Your task to perform on an android device: Go to battery settings Image 0: 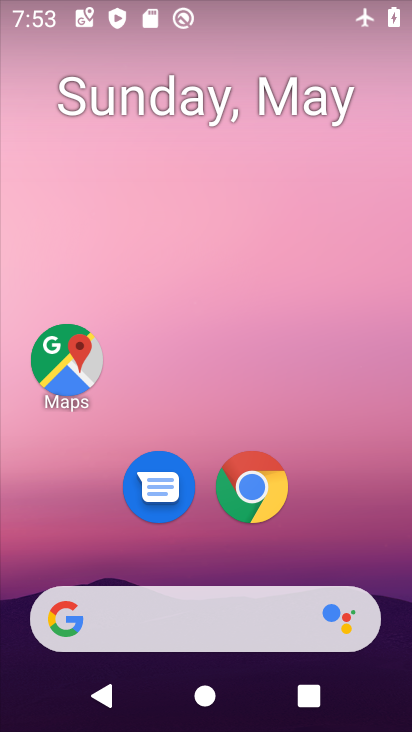
Step 0: drag from (381, 563) to (381, 303)
Your task to perform on an android device: Go to battery settings Image 1: 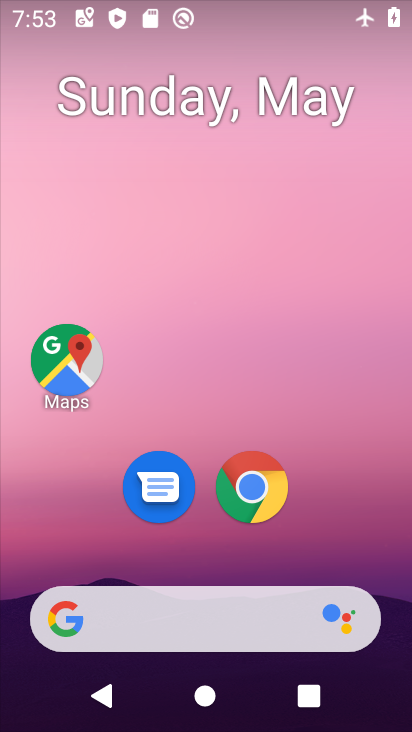
Step 1: drag from (367, 537) to (367, 158)
Your task to perform on an android device: Go to battery settings Image 2: 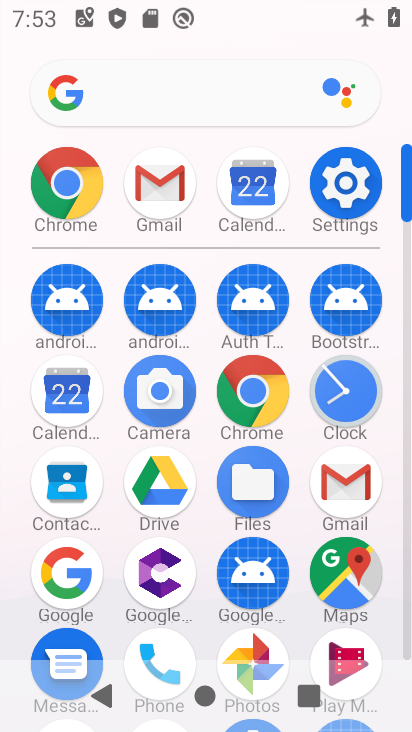
Step 2: click (356, 197)
Your task to perform on an android device: Go to battery settings Image 3: 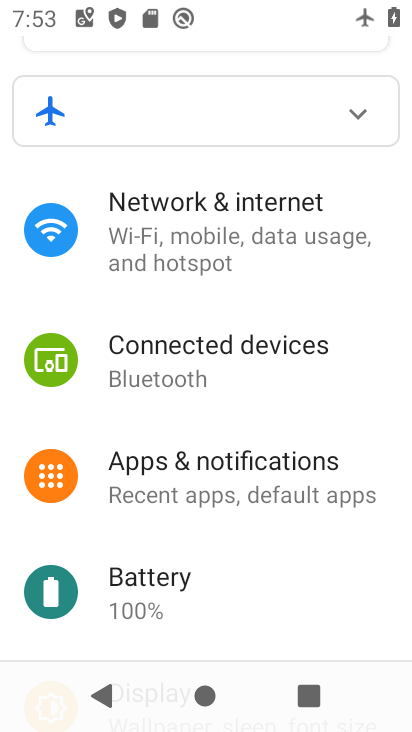
Step 3: drag from (387, 549) to (386, 488)
Your task to perform on an android device: Go to battery settings Image 4: 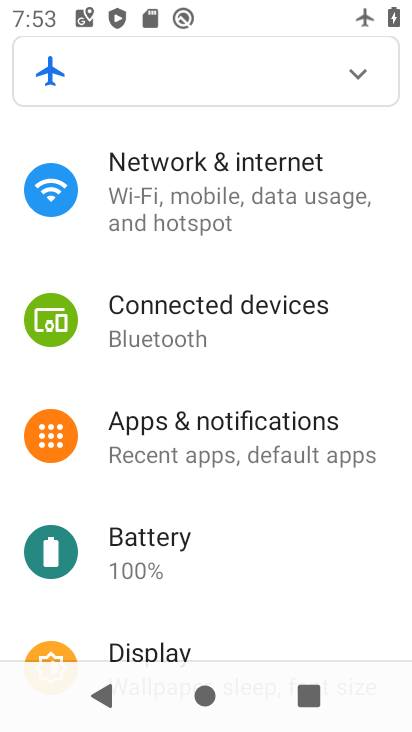
Step 4: drag from (378, 617) to (368, 502)
Your task to perform on an android device: Go to battery settings Image 5: 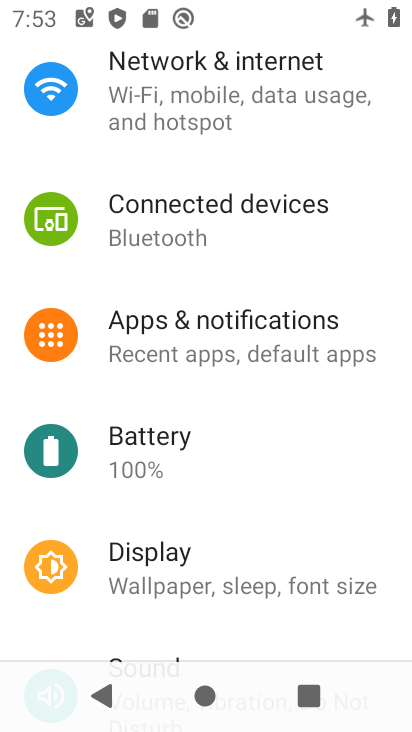
Step 5: drag from (369, 586) to (358, 509)
Your task to perform on an android device: Go to battery settings Image 6: 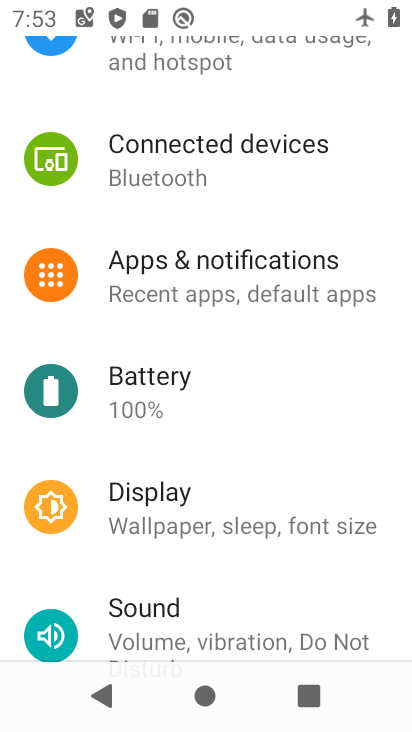
Step 6: drag from (359, 600) to (360, 496)
Your task to perform on an android device: Go to battery settings Image 7: 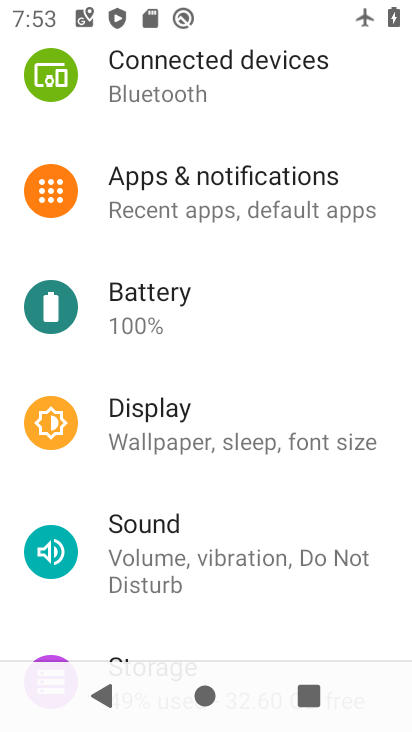
Step 7: drag from (356, 604) to (356, 524)
Your task to perform on an android device: Go to battery settings Image 8: 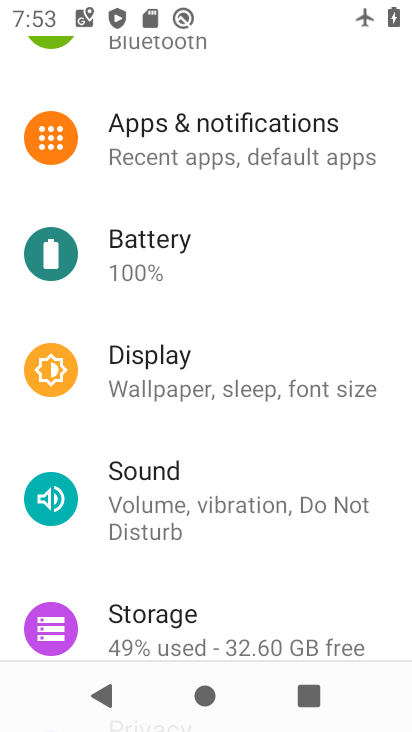
Step 8: drag from (361, 599) to (349, 489)
Your task to perform on an android device: Go to battery settings Image 9: 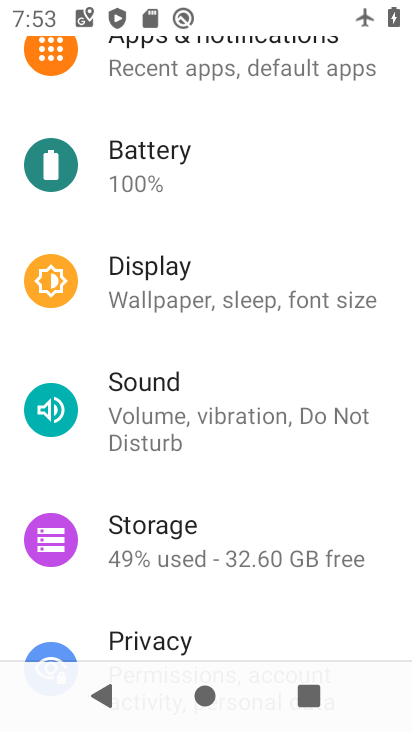
Step 9: drag from (364, 618) to (364, 531)
Your task to perform on an android device: Go to battery settings Image 10: 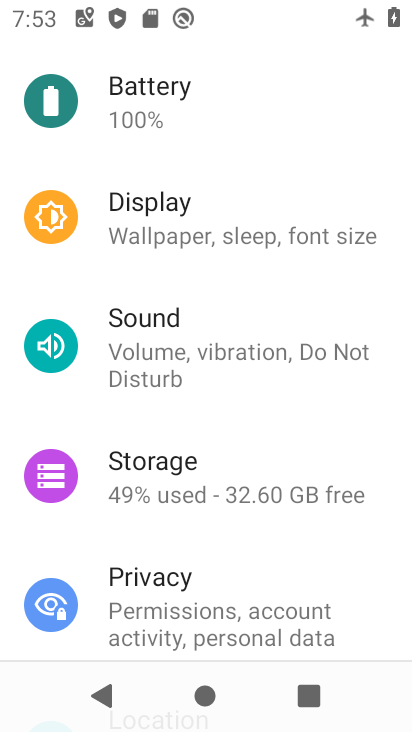
Step 10: drag from (366, 629) to (366, 531)
Your task to perform on an android device: Go to battery settings Image 11: 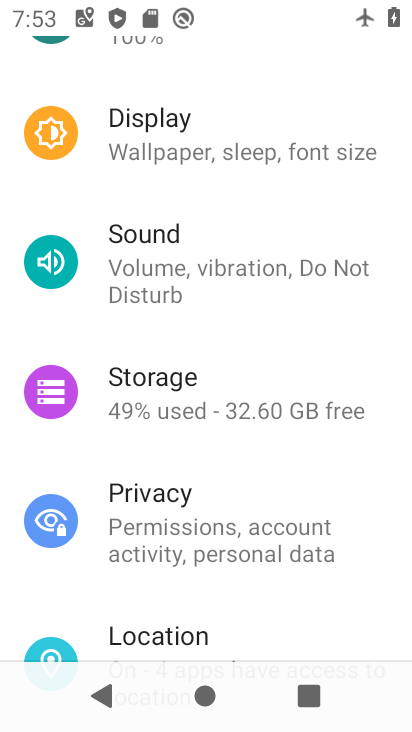
Step 11: drag from (356, 625) to (356, 526)
Your task to perform on an android device: Go to battery settings Image 12: 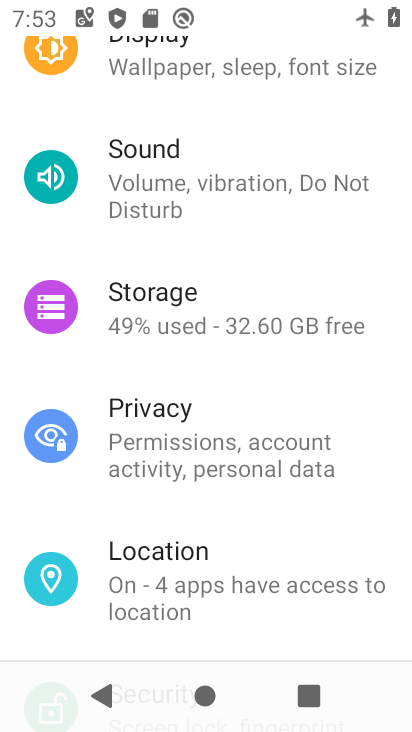
Step 12: drag from (359, 633) to (351, 530)
Your task to perform on an android device: Go to battery settings Image 13: 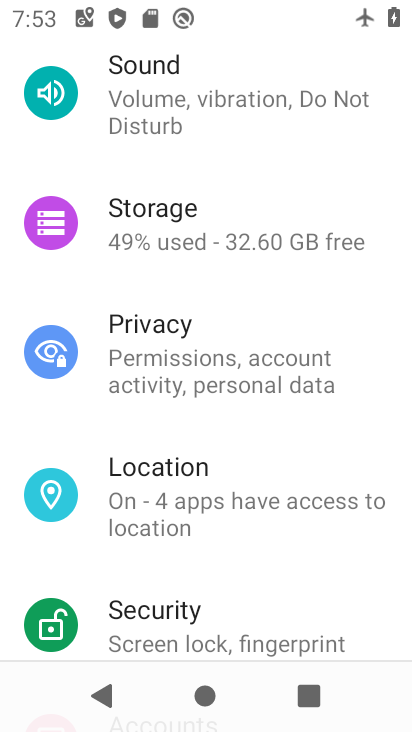
Step 13: drag from (367, 601) to (364, 543)
Your task to perform on an android device: Go to battery settings Image 14: 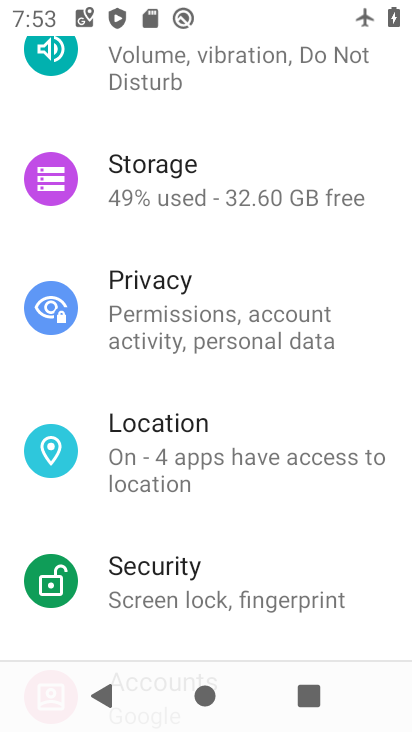
Step 14: drag from (372, 641) to (372, 562)
Your task to perform on an android device: Go to battery settings Image 15: 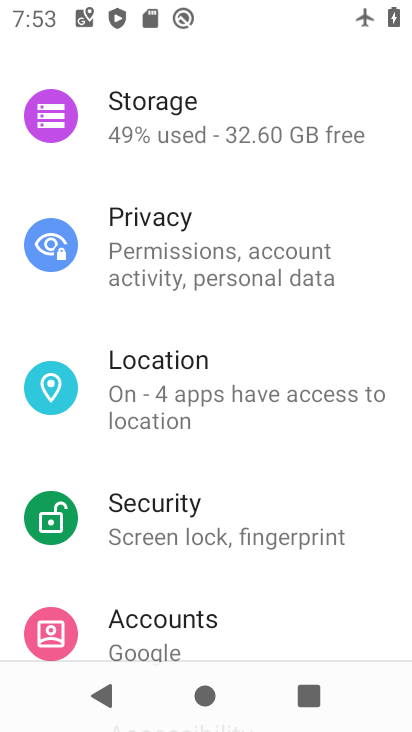
Step 15: drag from (370, 637) to (367, 508)
Your task to perform on an android device: Go to battery settings Image 16: 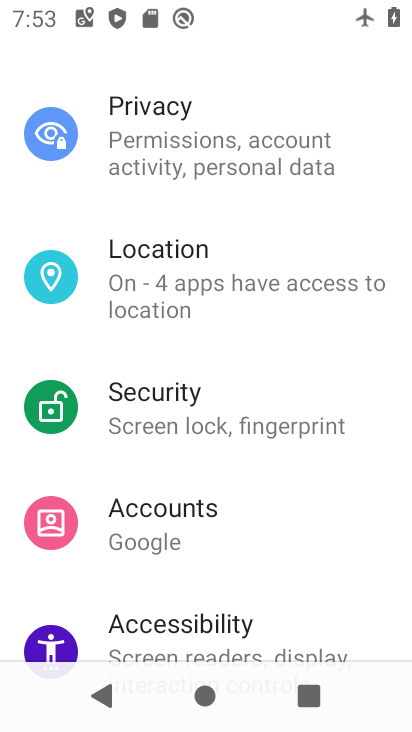
Step 16: drag from (369, 606) to (368, 494)
Your task to perform on an android device: Go to battery settings Image 17: 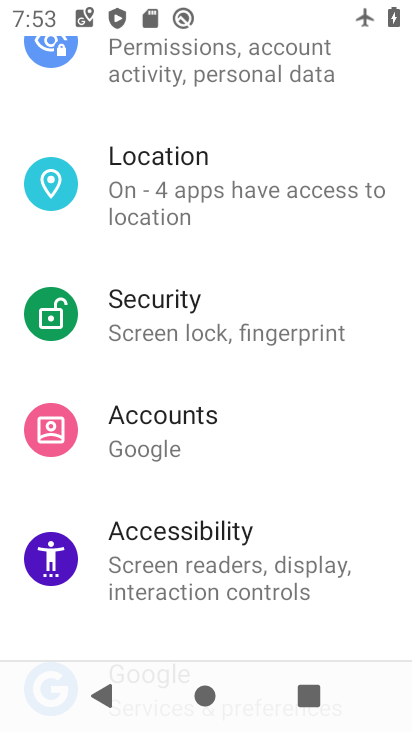
Step 17: drag from (358, 431) to (351, 548)
Your task to perform on an android device: Go to battery settings Image 18: 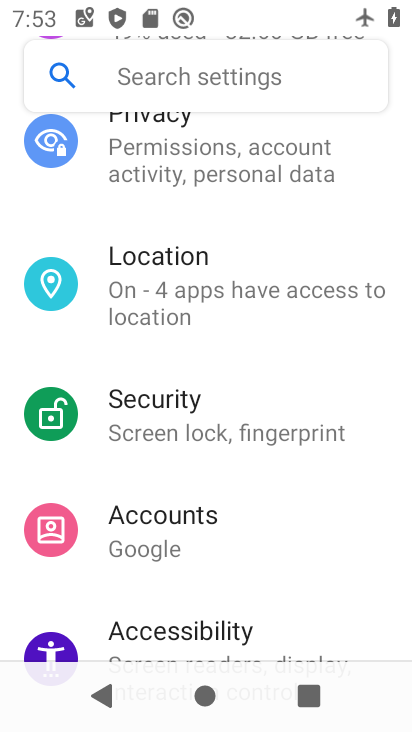
Step 18: drag from (339, 483) to (340, 557)
Your task to perform on an android device: Go to battery settings Image 19: 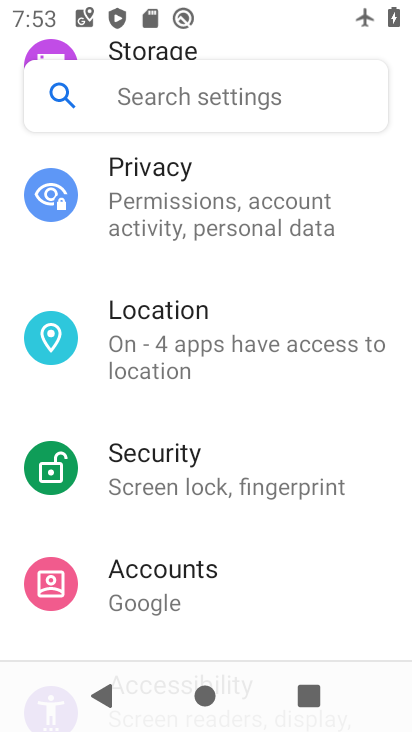
Step 19: drag from (357, 468) to (359, 544)
Your task to perform on an android device: Go to battery settings Image 20: 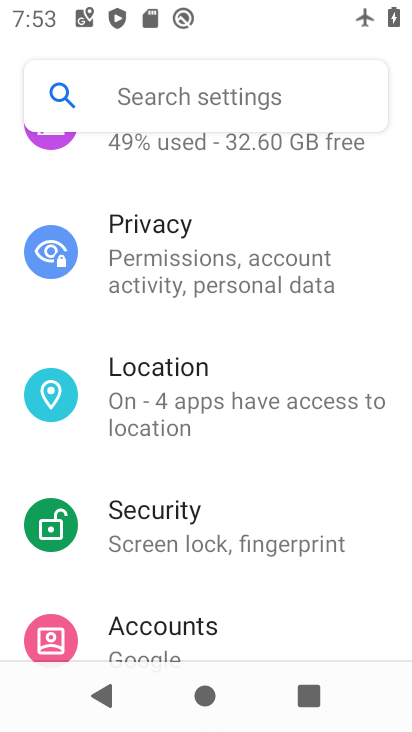
Step 20: drag from (361, 481) to (363, 540)
Your task to perform on an android device: Go to battery settings Image 21: 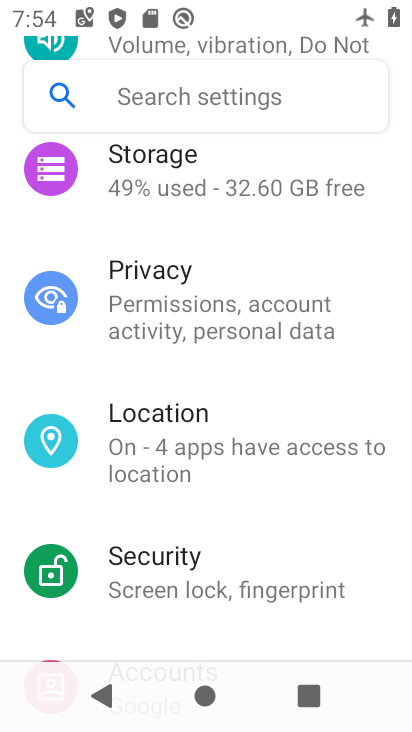
Step 21: drag from (381, 491) to (381, 576)
Your task to perform on an android device: Go to battery settings Image 22: 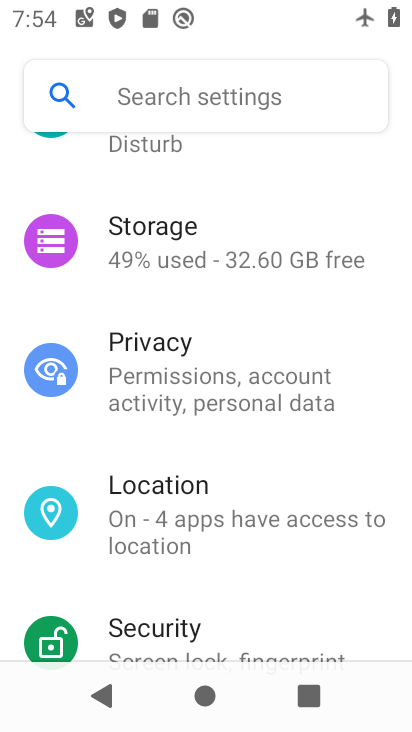
Step 22: drag from (391, 456) to (385, 542)
Your task to perform on an android device: Go to battery settings Image 23: 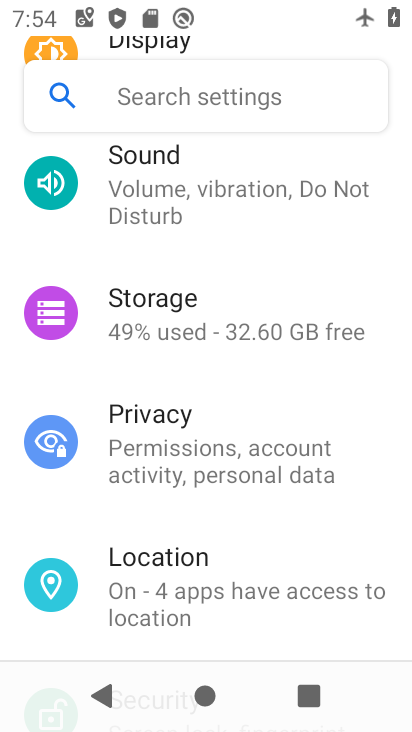
Step 23: drag from (378, 399) to (368, 491)
Your task to perform on an android device: Go to battery settings Image 24: 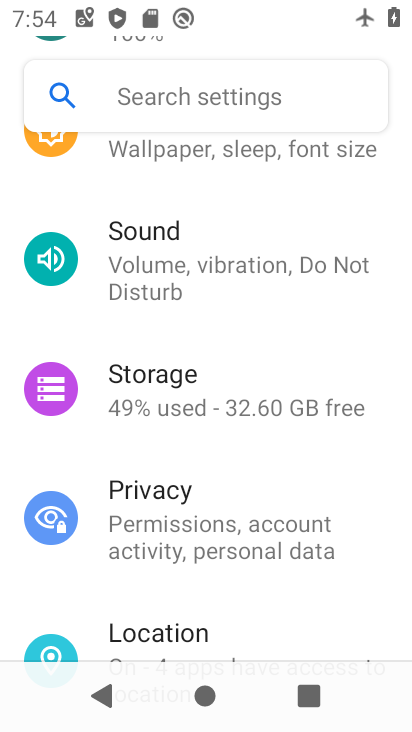
Step 24: drag from (353, 375) to (353, 458)
Your task to perform on an android device: Go to battery settings Image 25: 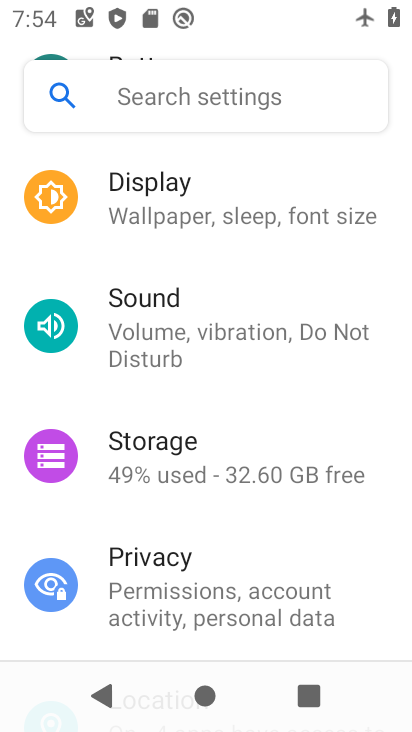
Step 25: drag from (364, 377) to (364, 479)
Your task to perform on an android device: Go to battery settings Image 26: 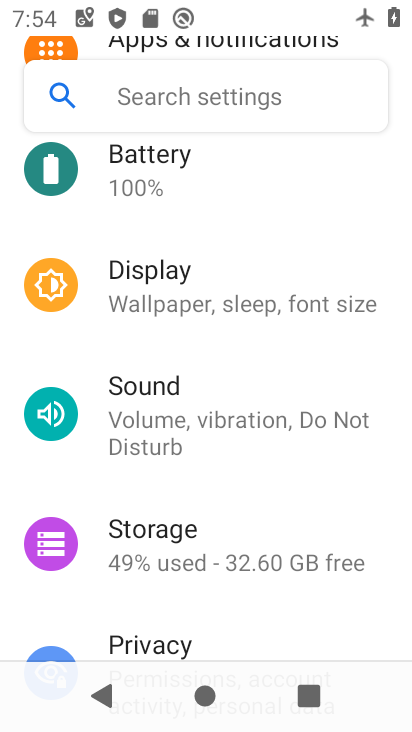
Step 26: drag from (362, 340) to (350, 438)
Your task to perform on an android device: Go to battery settings Image 27: 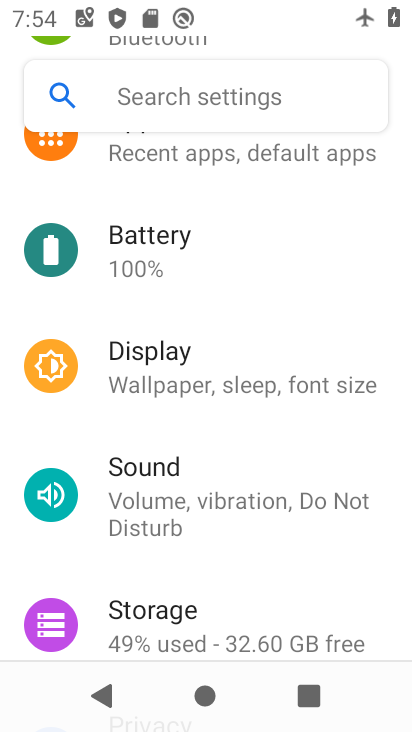
Step 27: drag from (342, 327) to (349, 503)
Your task to perform on an android device: Go to battery settings Image 28: 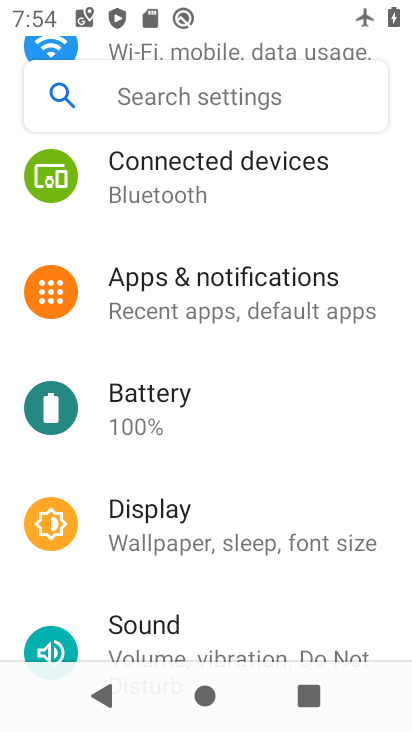
Step 28: click (194, 406)
Your task to perform on an android device: Go to battery settings Image 29: 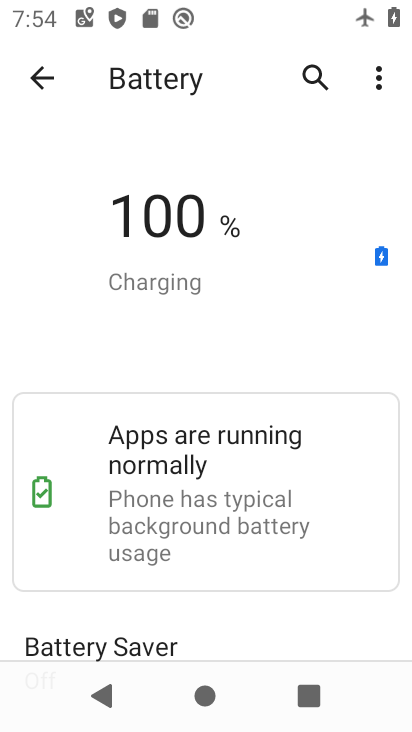
Step 29: task complete